Your task to perform on an android device: check the backup settings in the google photos Image 0: 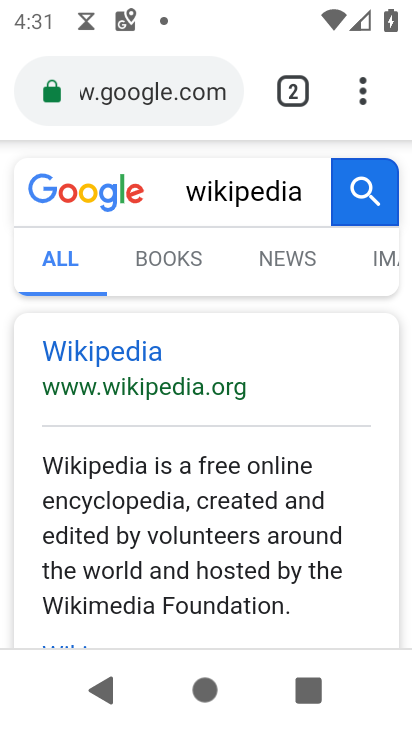
Step 0: press home button
Your task to perform on an android device: check the backup settings in the google photos Image 1: 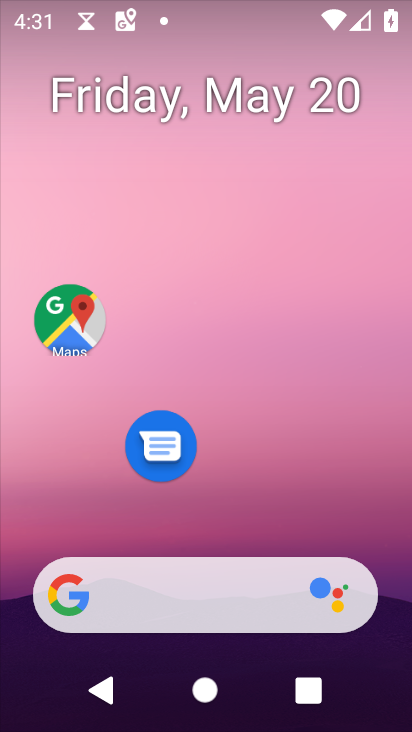
Step 1: drag from (198, 540) to (269, 22)
Your task to perform on an android device: check the backup settings in the google photos Image 2: 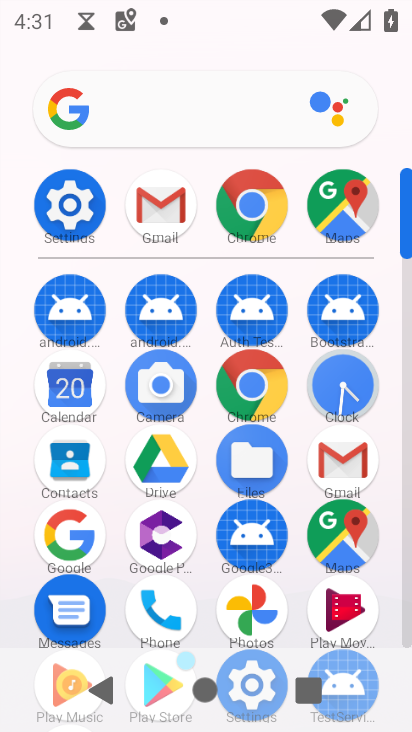
Step 2: click (236, 607)
Your task to perform on an android device: check the backup settings in the google photos Image 3: 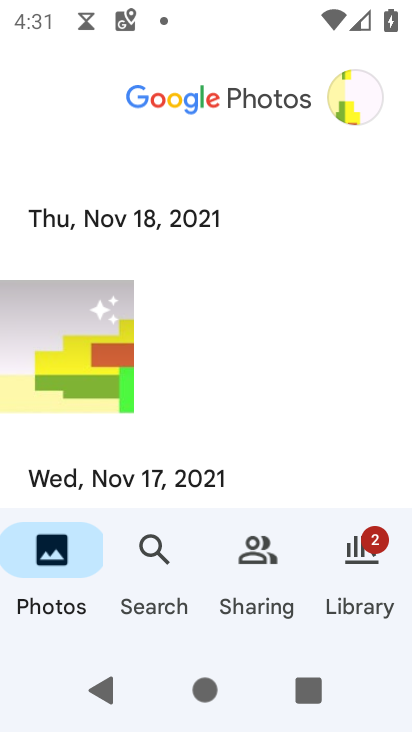
Step 3: click (357, 84)
Your task to perform on an android device: check the backup settings in the google photos Image 4: 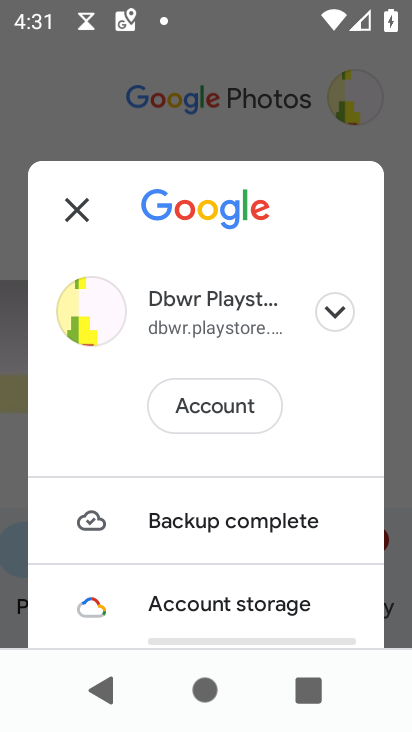
Step 4: drag from (183, 546) to (234, 234)
Your task to perform on an android device: check the backup settings in the google photos Image 5: 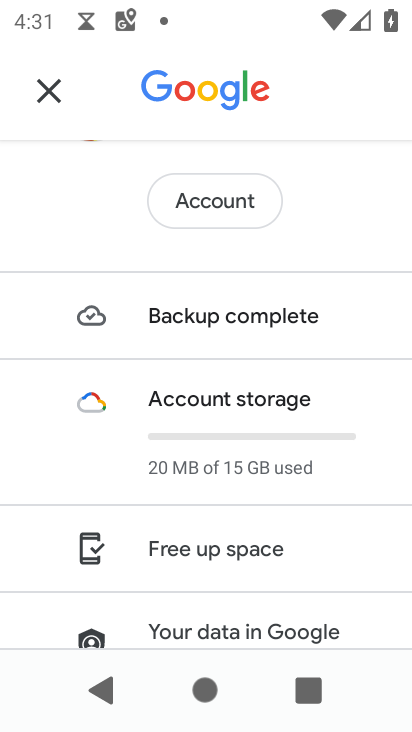
Step 5: drag from (215, 529) to (268, 236)
Your task to perform on an android device: check the backup settings in the google photos Image 6: 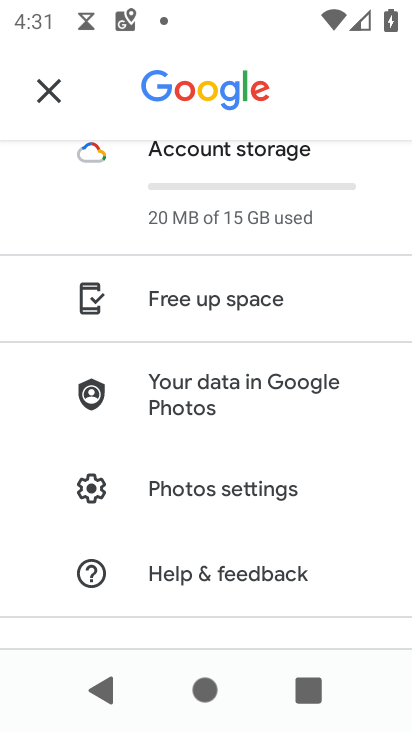
Step 6: click (230, 497)
Your task to perform on an android device: check the backup settings in the google photos Image 7: 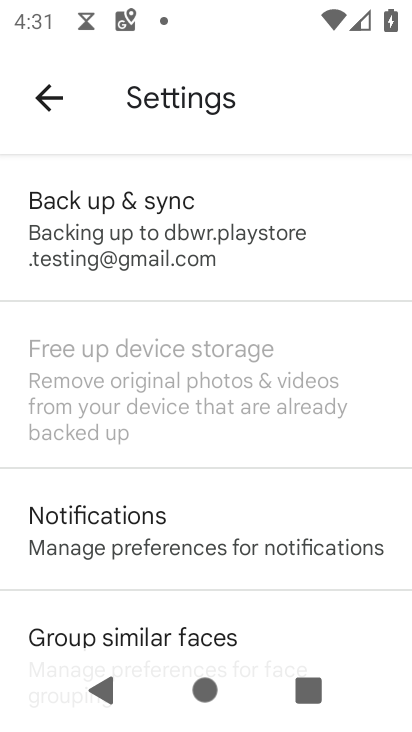
Step 7: click (137, 252)
Your task to perform on an android device: check the backup settings in the google photos Image 8: 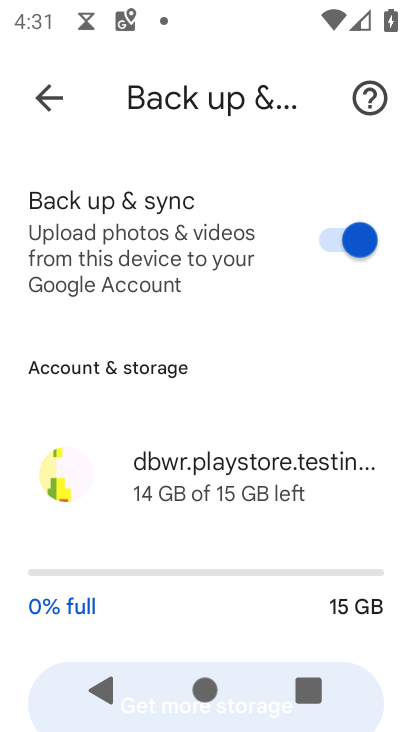
Step 8: task complete